Your task to perform on an android device: Open eBay Image 0: 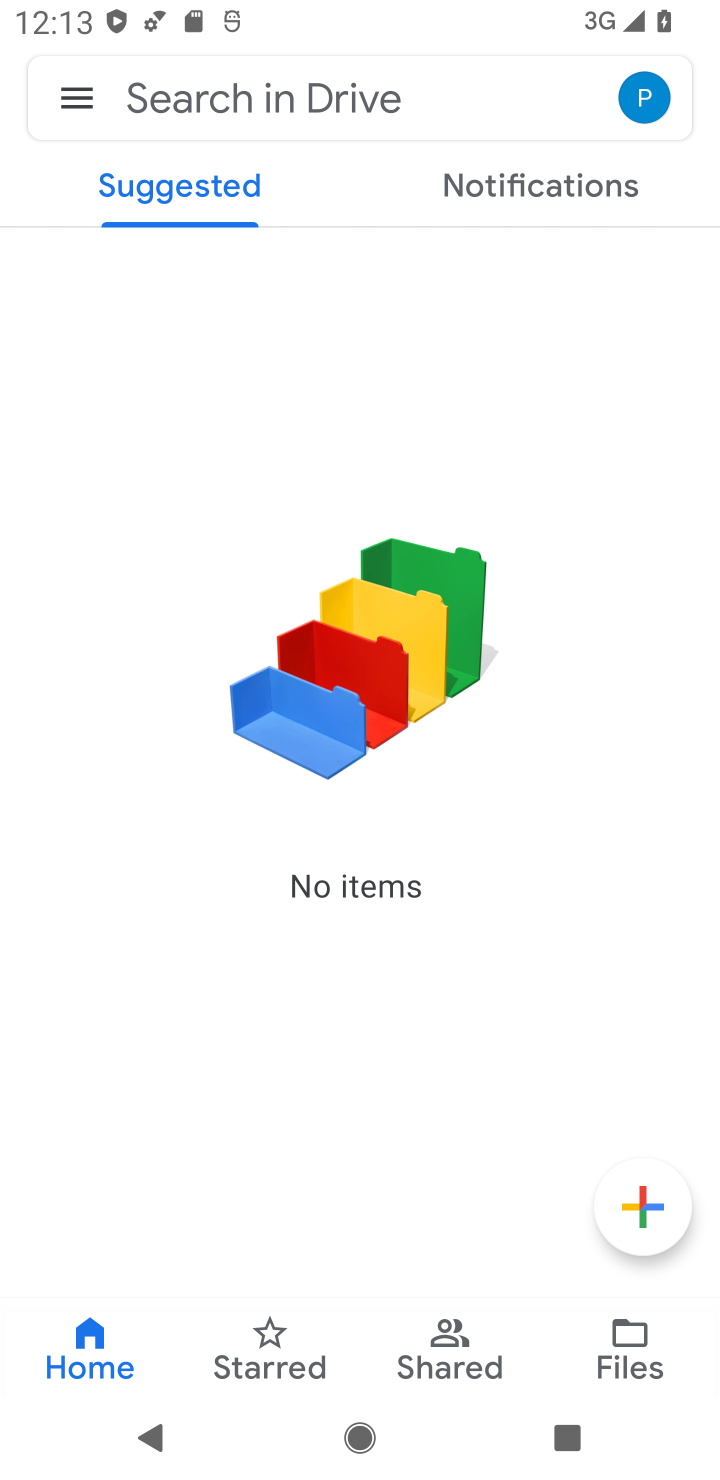
Step 0: press home button
Your task to perform on an android device: Open eBay Image 1: 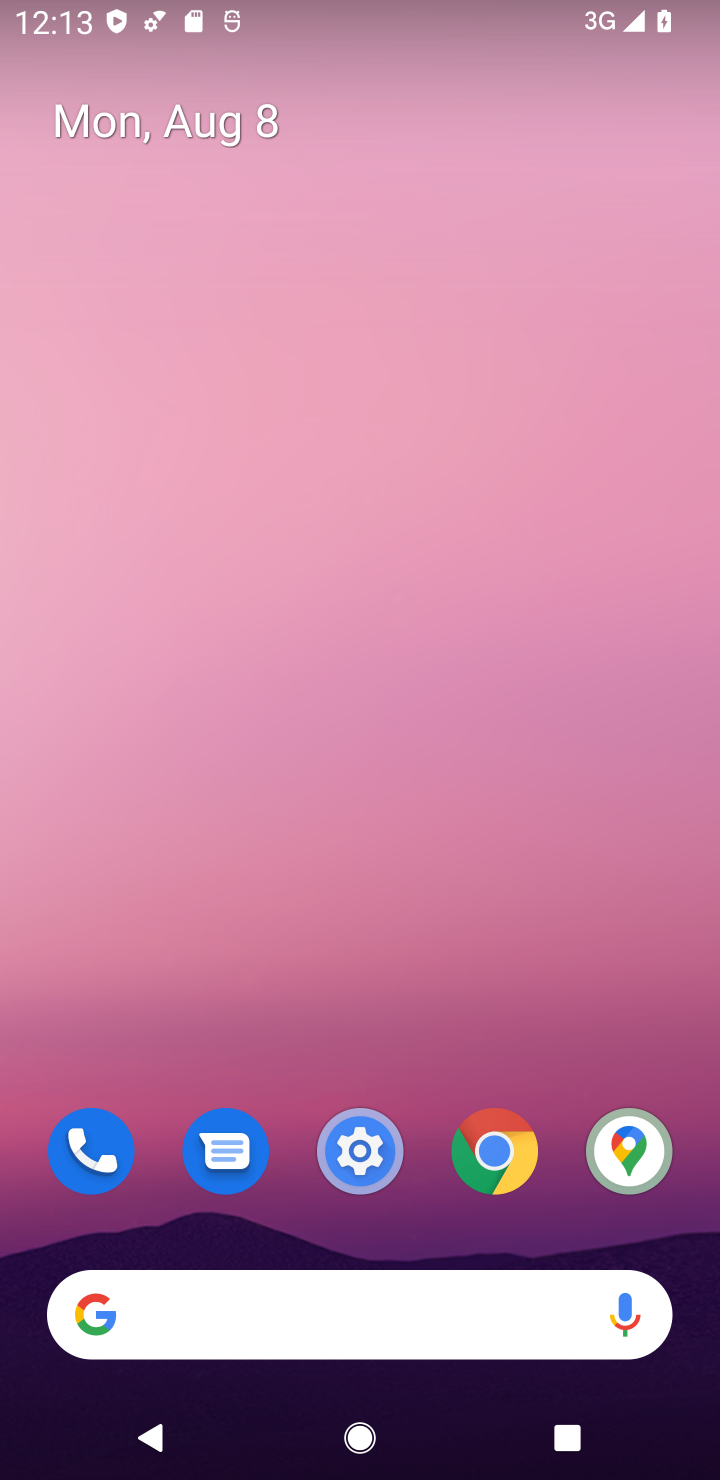
Step 1: drag from (229, 1250) to (124, 238)
Your task to perform on an android device: Open eBay Image 2: 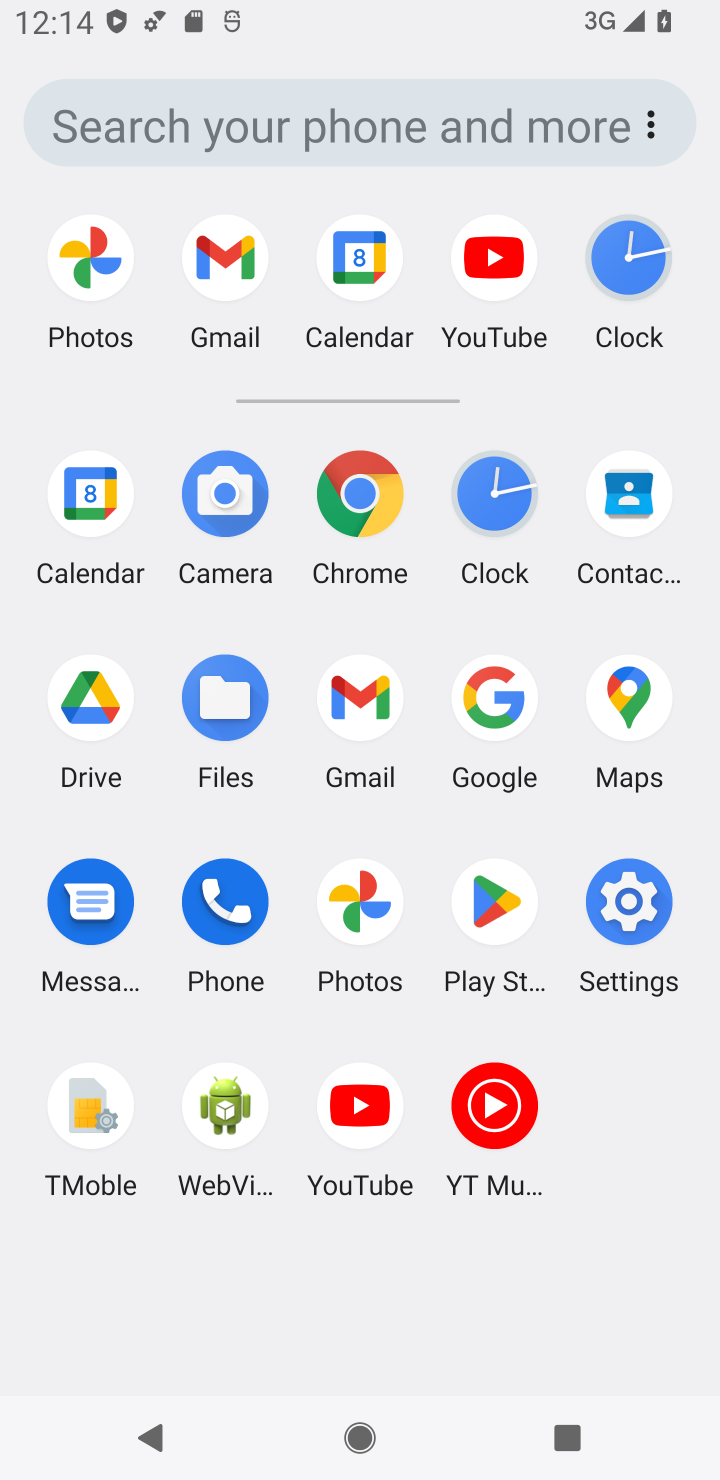
Step 2: click (481, 691)
Your task to perform on an android device: Open eBay Image 3: 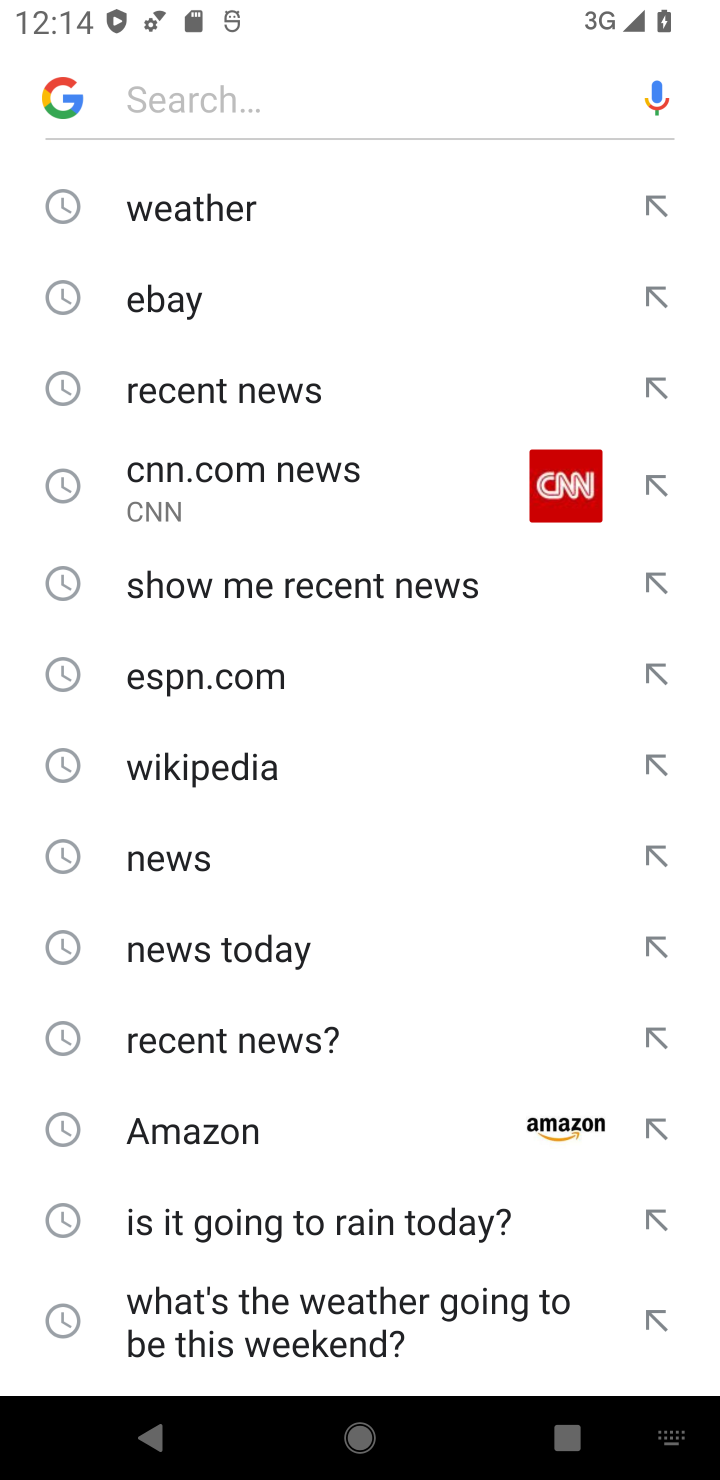
Step 3: click (229, 329)
Your task to perform on an android device: Open eBay Image 4: 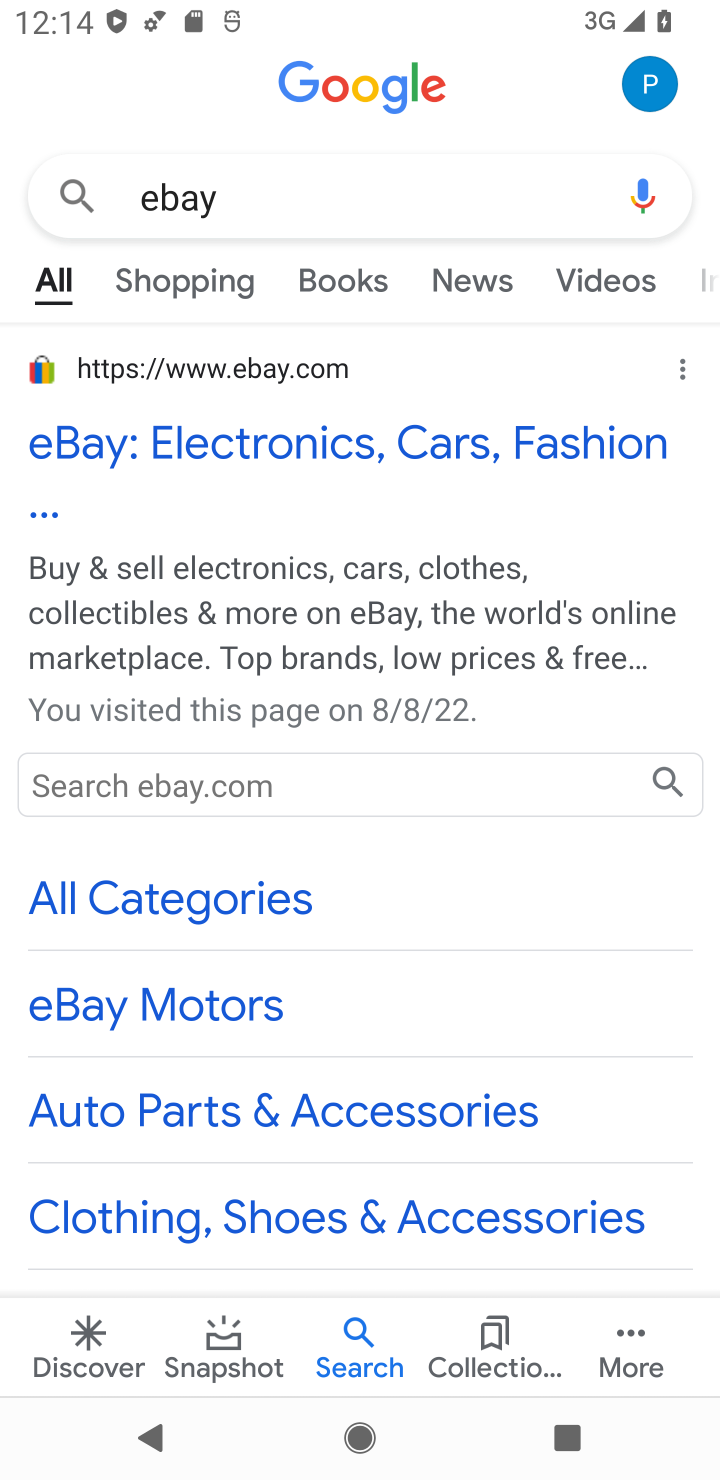
Step 4: click (262, 459)
Your task to perform on an android device: Open eBay Image 5: 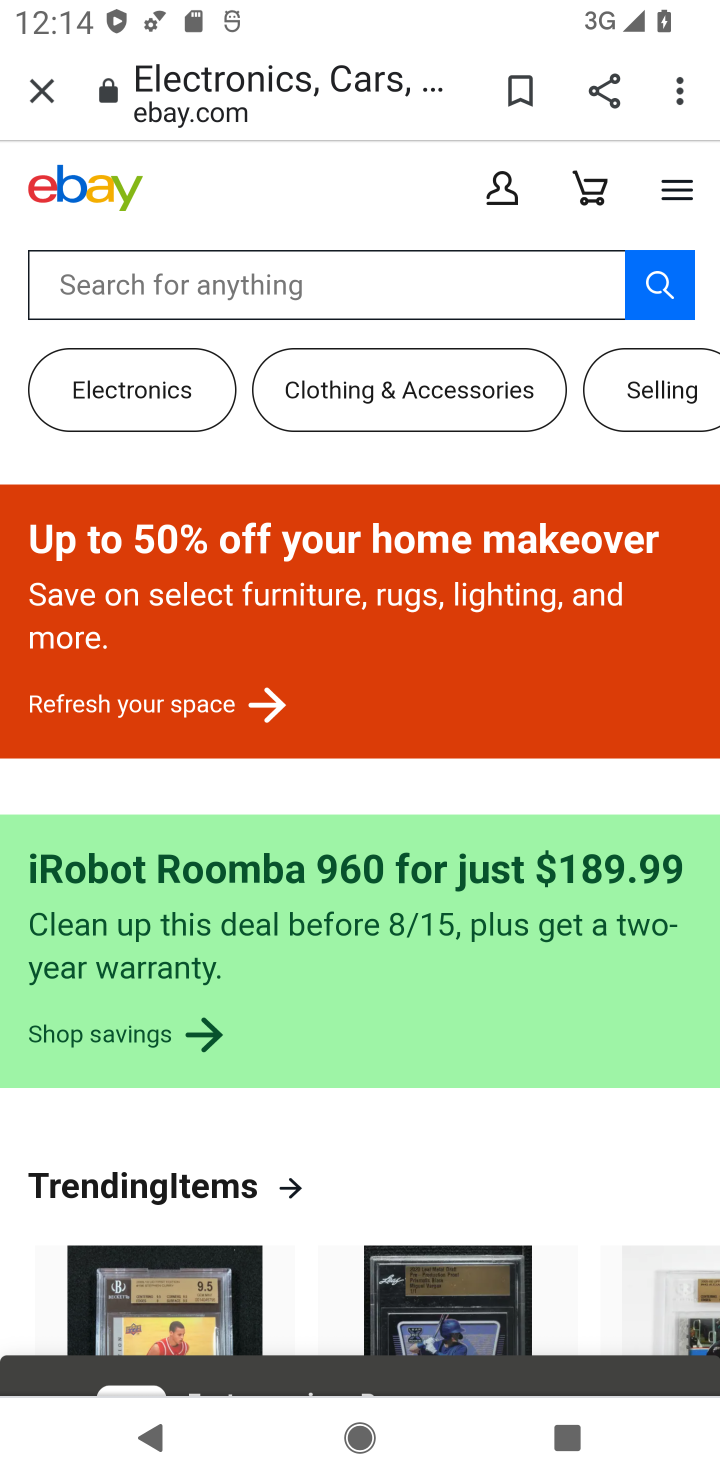
Step 5: task complete